Your task to perform on an android device: Open internet settings Image 0: 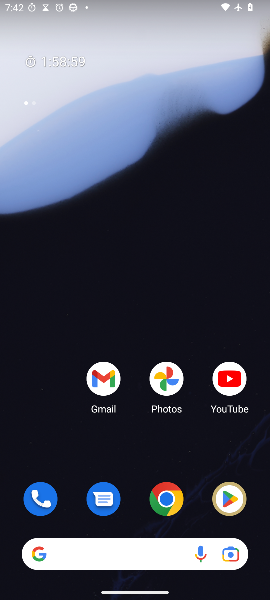
Step 0: drag from (131, 287) to (142, 59)
Your task to perform on an android device: Open internet settings Image 1: 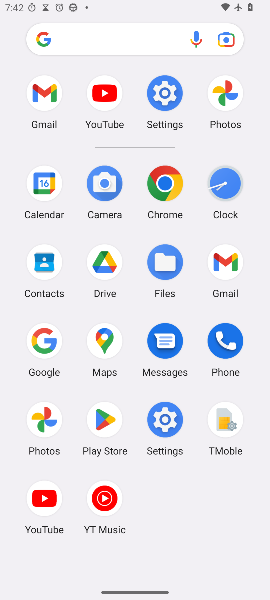
Step 1: click (168, 99)
Your task to perform on an android device: Open internet settings Image 2: 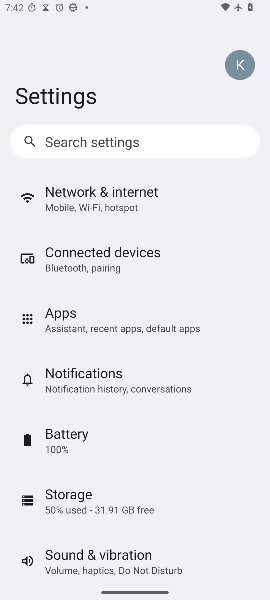
Step 2: click (112, 201)
Your task to perform on an android device: Open internet settings Image 3: 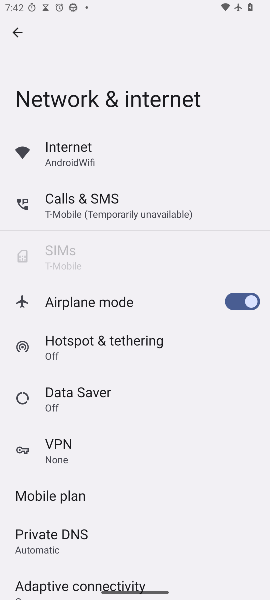
Step 3: task complete